Your task to perform on an android device: Go to CNN.com Image 0: 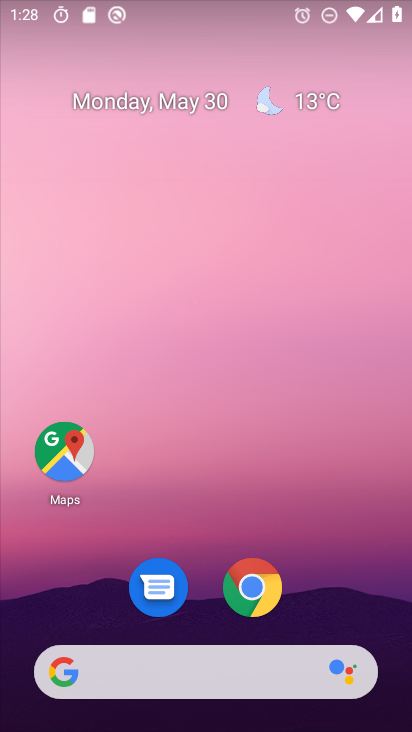
Step 0: drag from (337, 542) to (299, 180)
Your task to perform on an android device: Go to CNN.com Image 1: 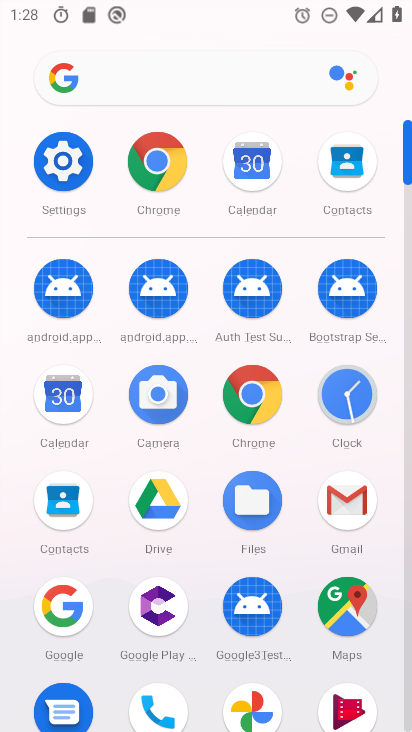
Step 1: click (158, 159)
Your task to perform on an android device: Go to CNN.com Image 2: 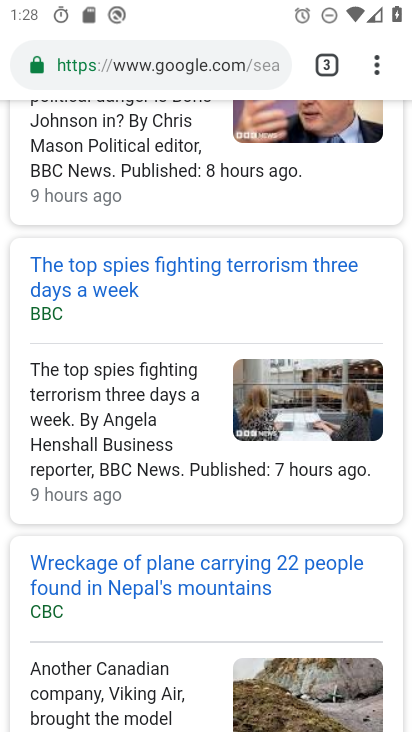
Step 2: click (220, 68)
Your task to perform on an android device: Go to CNN.com Image 3: 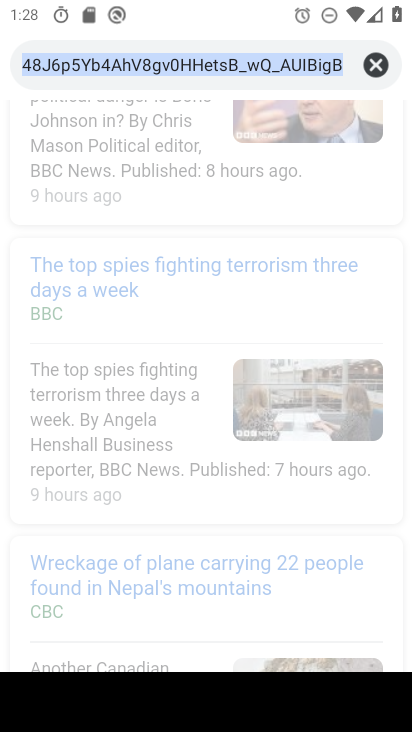
Step 3: type "cnn.com"
Your task to perform on an android device: Go to CNN.com Image 4: 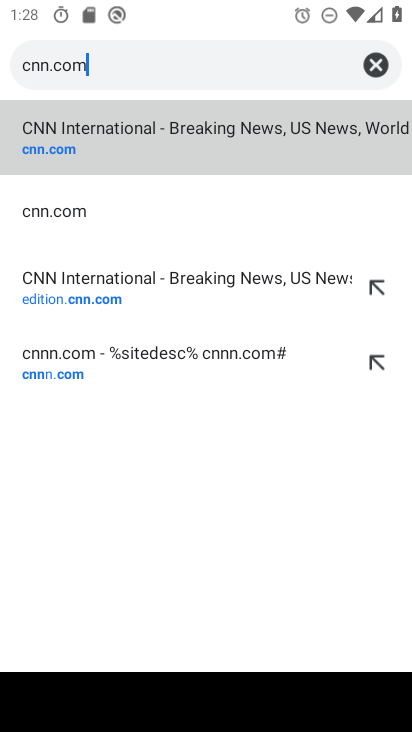
Step 4: click (62, 149)
Your task to perform on an android device: Go to CNN.com Image 5: 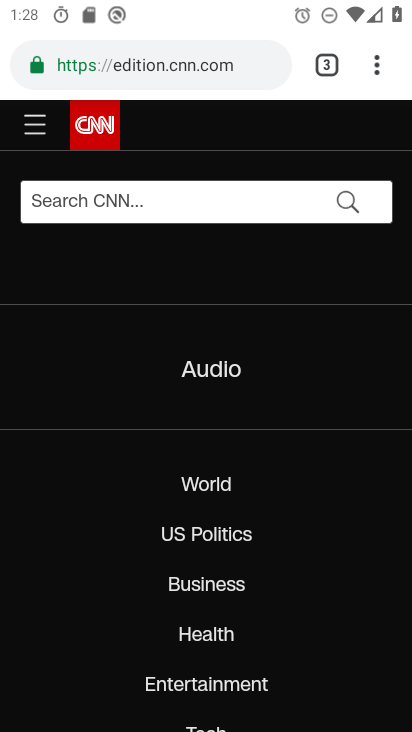
Step 5: task complete